Your task to perform on an android device: Show me recent news Image 0: 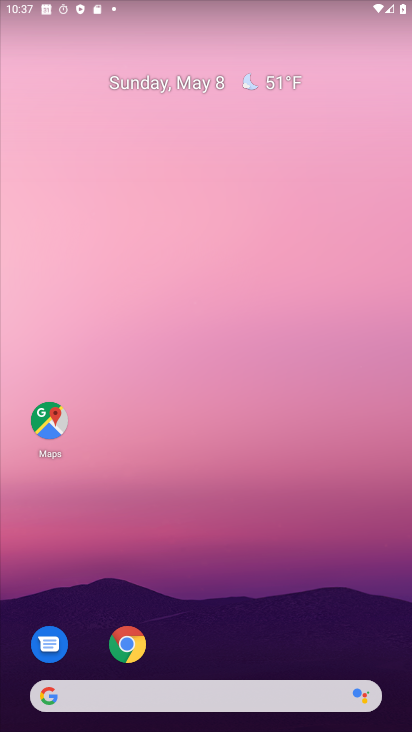
Step 0: drag from (206, 648) to (297, 375)
Your task to perform on an android device: Show me recent news Image 1: 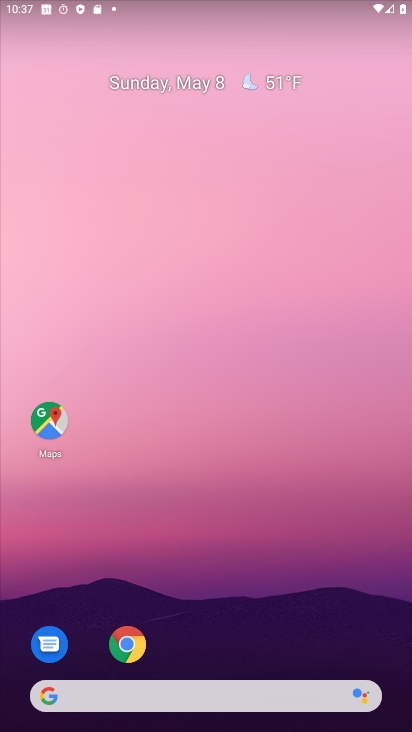
Step 1: drag from (185, 656) to (235, 189)
Your task to perform on an android device: Show me recent news Image 2: 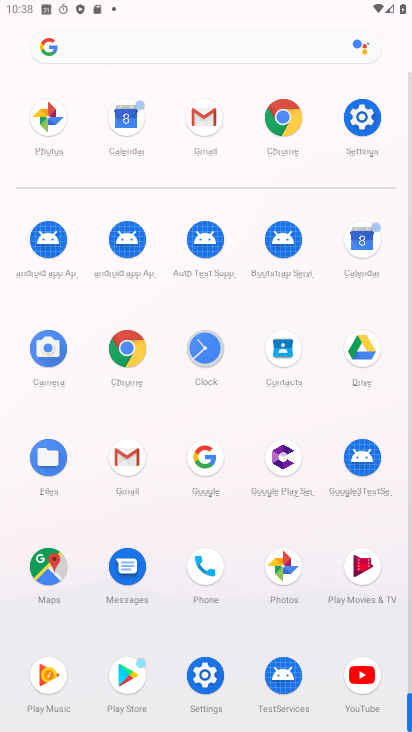
Step 2: click (203, 47)
Your task to perform on an android device: Show me recent news Image 3: 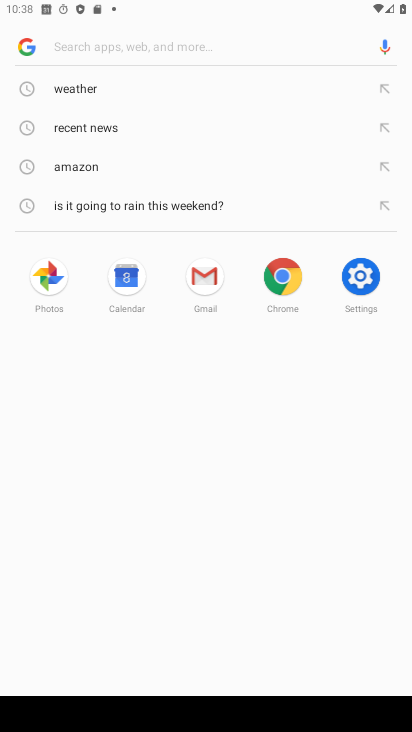
Step 3: click (102, 120)
Your task to perform on an android device: Show me recent news Image 4: 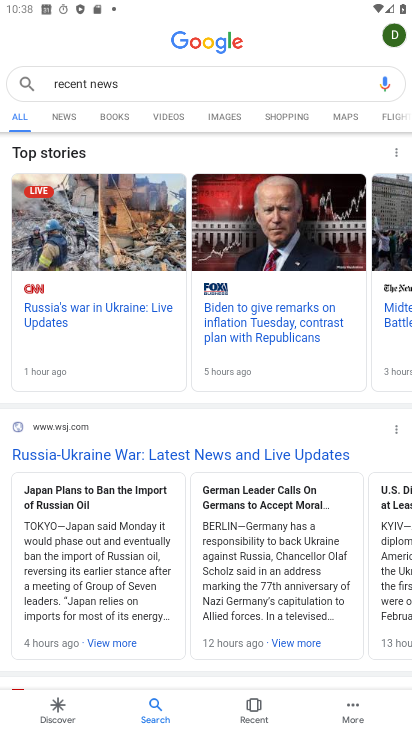
Step 4: drag from (200, 621) to (274, 245)
Your task to perform on an android device: Show me recent news Image 5: 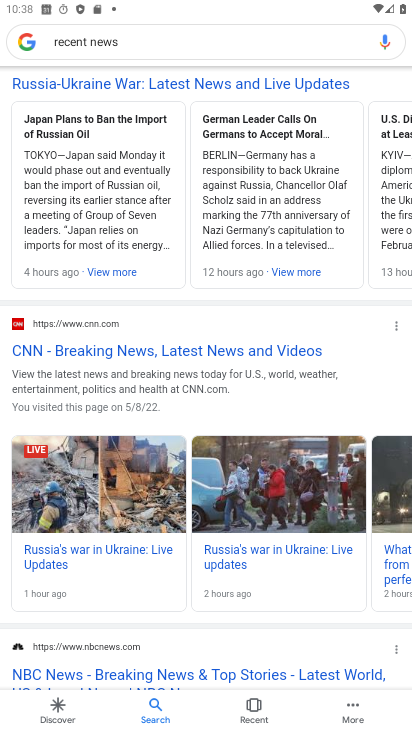
Step 5: drag from (261, 257) to (293, 632)
Your task to perform on an android device: Show me recent news Image 6: 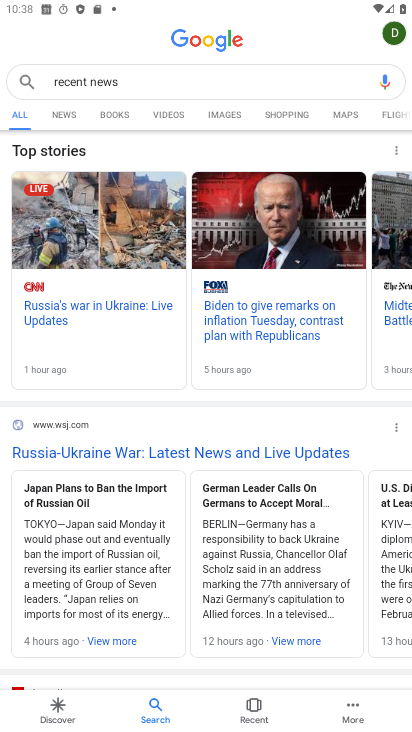
Step 6: click (93, 454)
Your task to perform on an android device: Show me recent news Image 7: 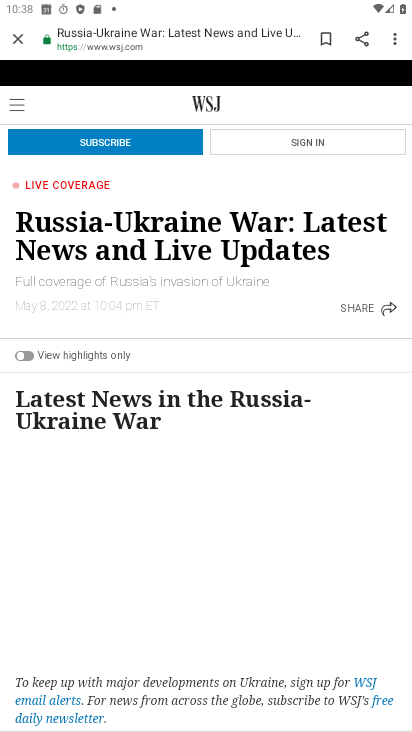
Step 7: task complete